Your task to perform on an android device: Go to notification settings Image 0: 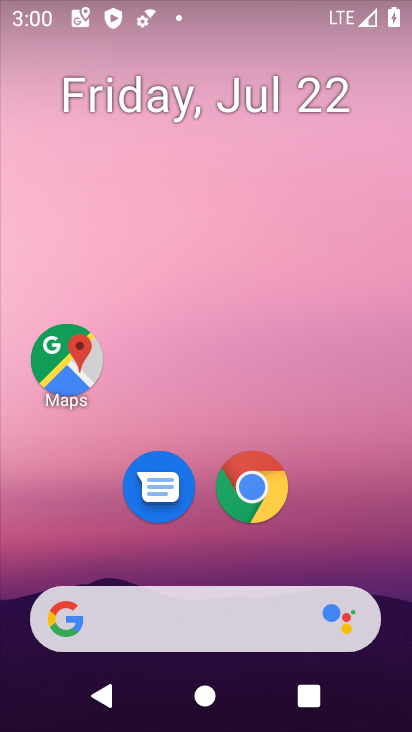
Step 0: drag from (179, 561) to (252, 1)
Your task to perform on an android device: Go to notification settings Image 1: 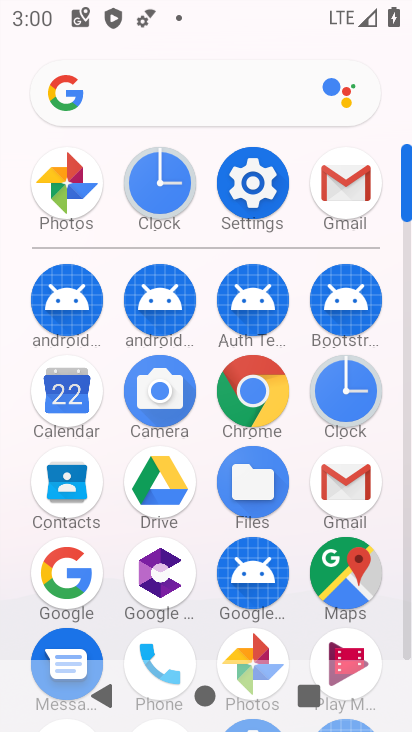
Step 1: click (254, 180)
Your task to perform on an android device: Go to notification settings Image 2: 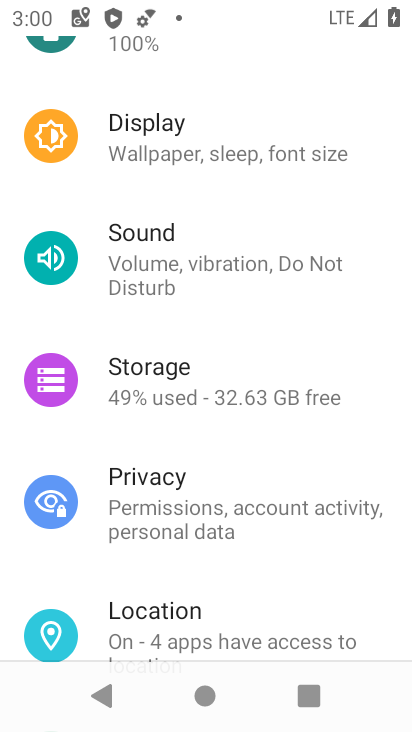
Step 2: drag from (290, 230) to (202, 725)
Your task to perform on an android device: Go to notification settings Image 3: 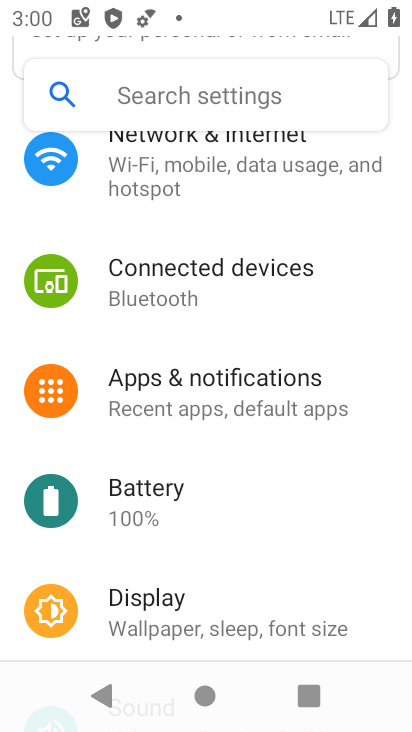
Step 3: click (193, 393)
Your task to perform on an android device: Go to notification settings Image 4: 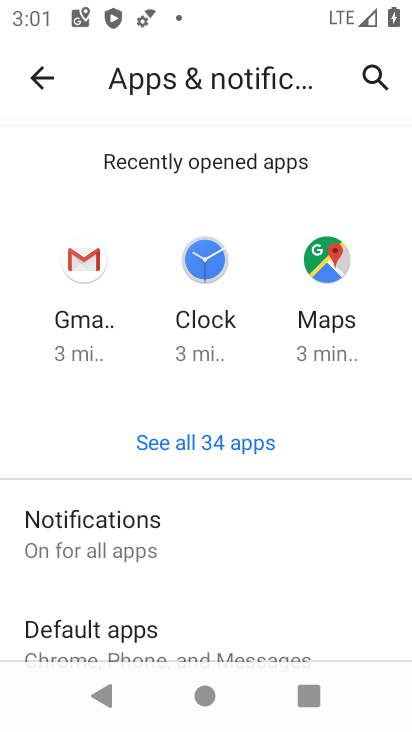
Step 4: task complete